Your task to perform on an android device: Go to ESPN.com Image 0: 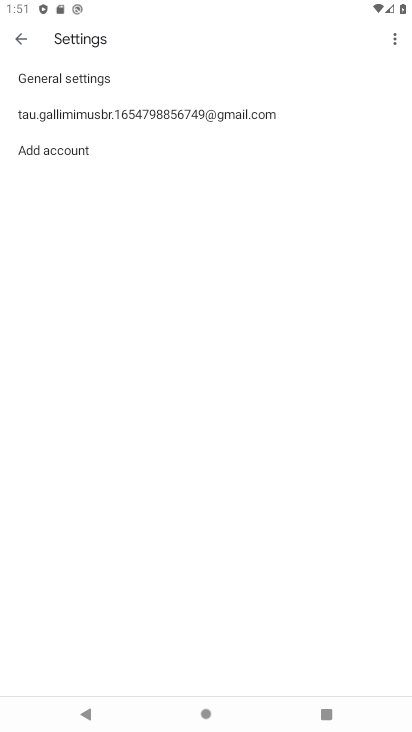
Step 0: press home button
Your task to perform on an android device: Go to ESPN.com Image 1: 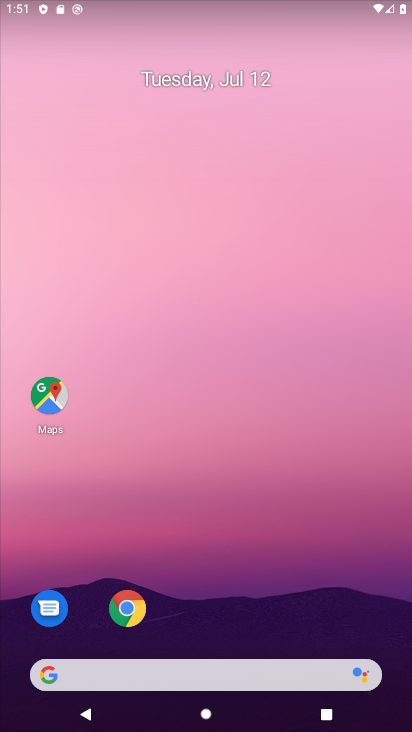
Step 1: drag from (238, 599) to (181, 118)
Your task to perform on an android device: Go to ESPN.com Image 2: 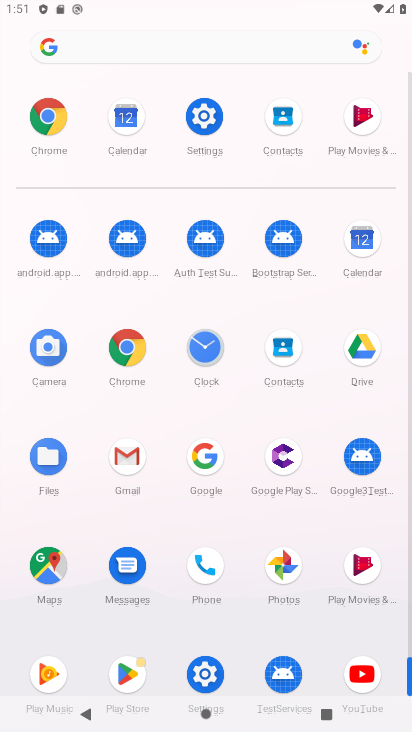
Step 2: click (54, 118)
Your task to perform on an android device: Go to ESPN.com Image 3: 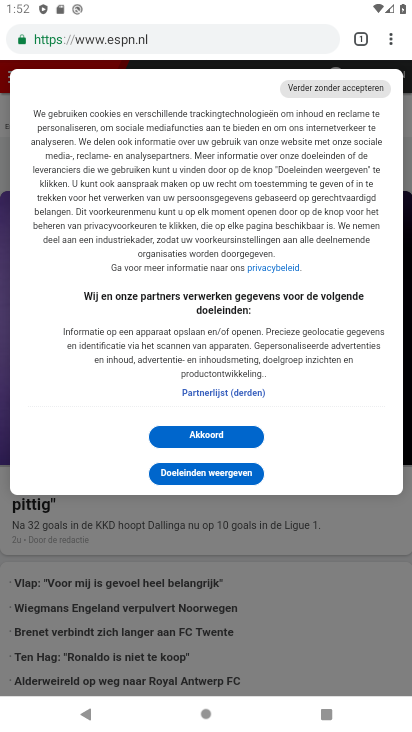
Step 3: task complete